Your task to perform on an android device: Open Google Chrome and open the bookmarks view Image 0: 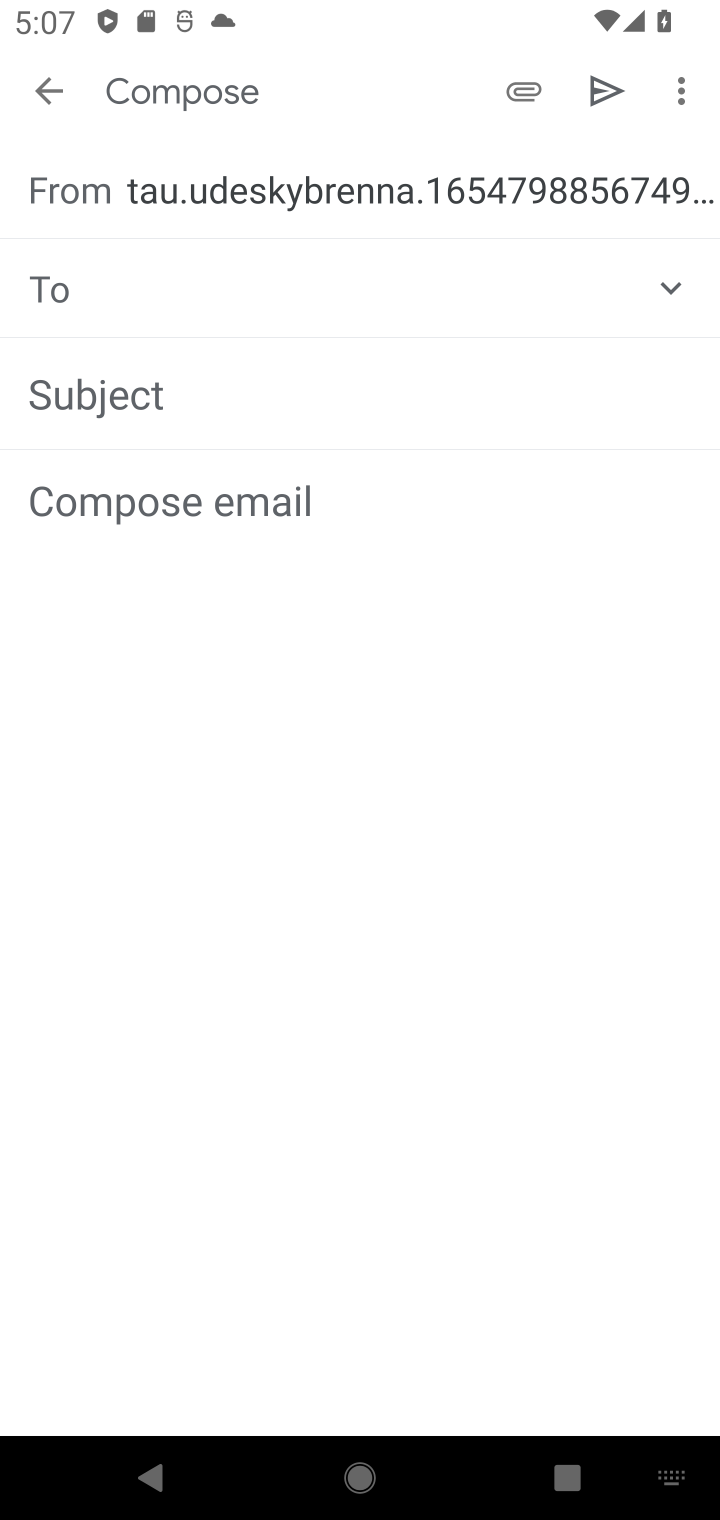
Step 0: press home button
Your task to perform on an android device: Open Google Chrome and open the bookmarks view Image 1: 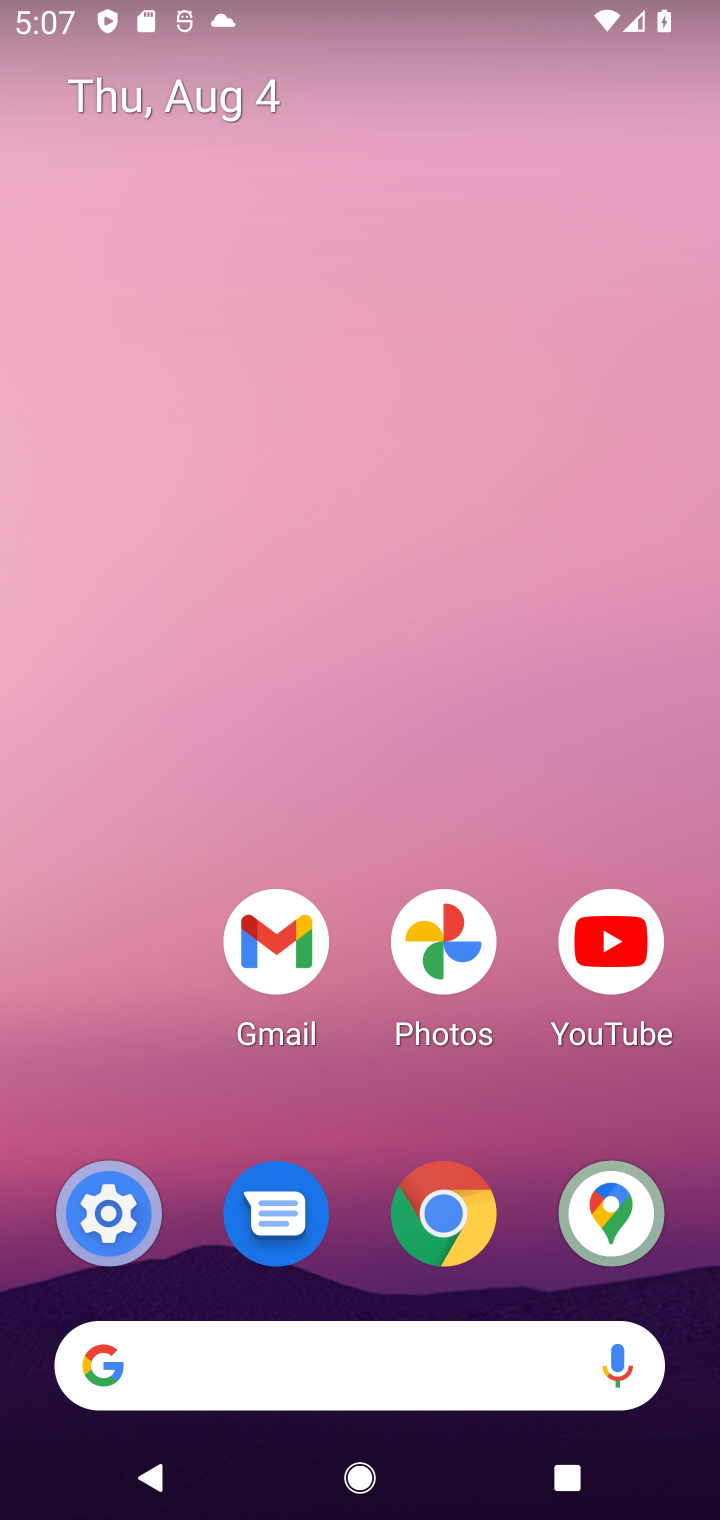
Step 1: drag from (149, 962) to (189, 278)
Your task to perform on an android device: Open Google Chrome and open the bookmarks view Image 2: 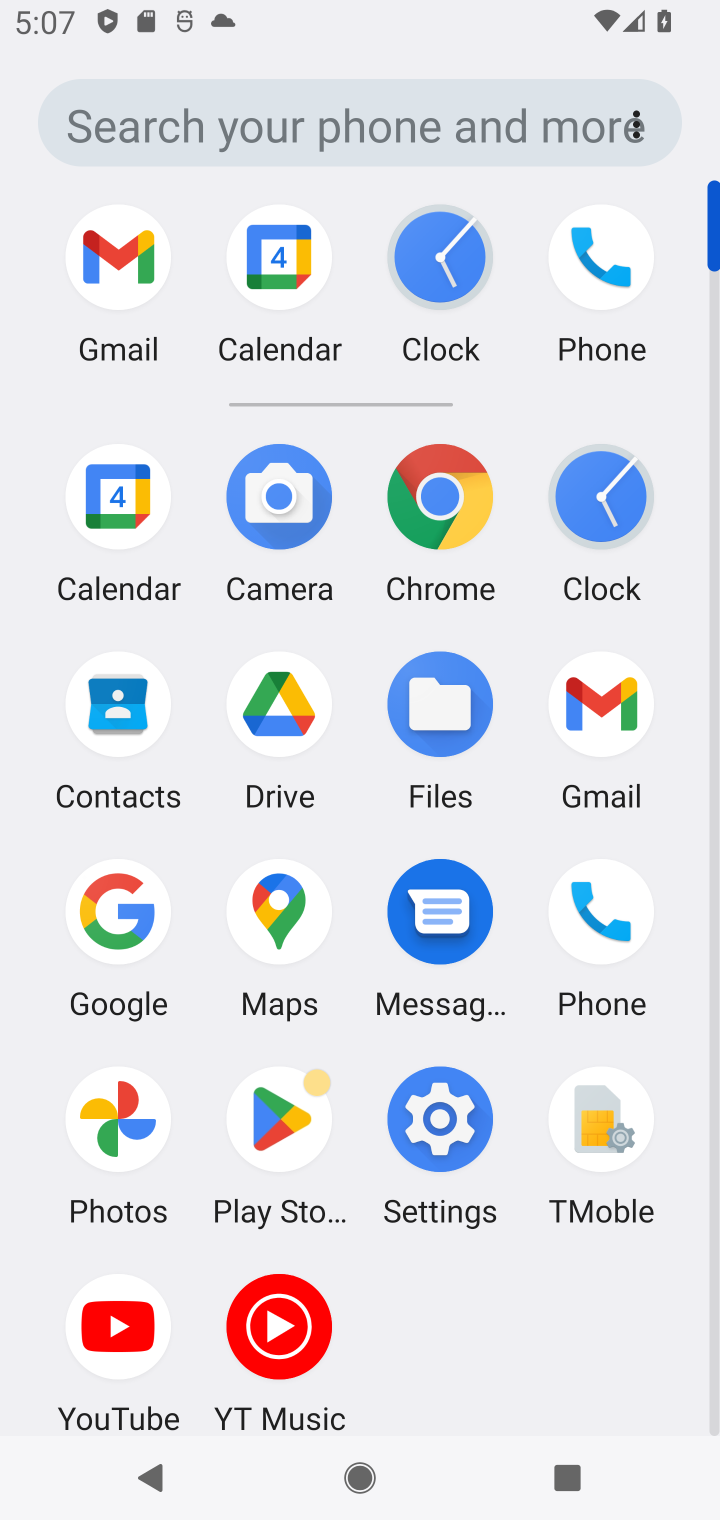
Step 2: click (434, 475)
Your task to perform on an android device: Open Google Chrome and open the bookmarks view Image 3: 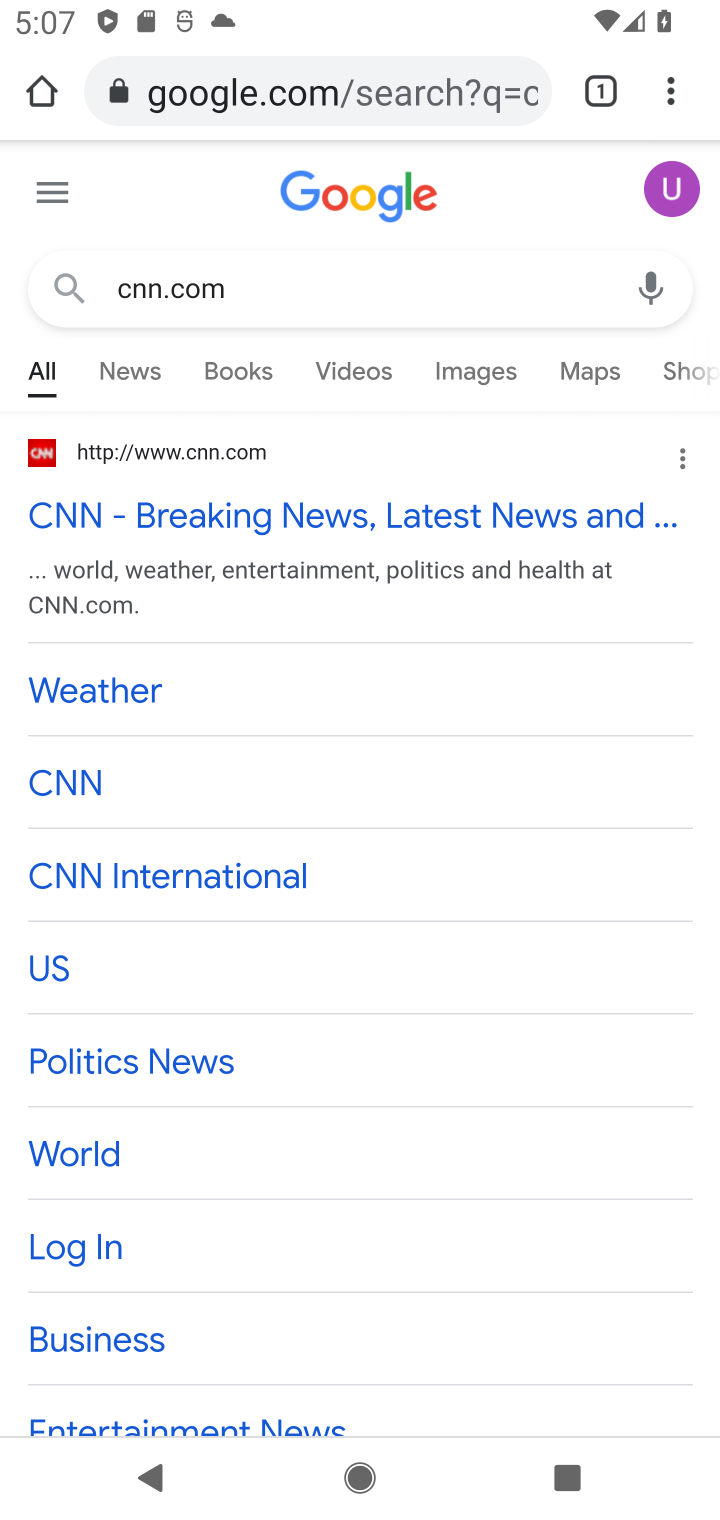
Step 3: click (667, 96)
Your task to perform on an android device: Open Google Chrome and open the bookmarks view Image 4: 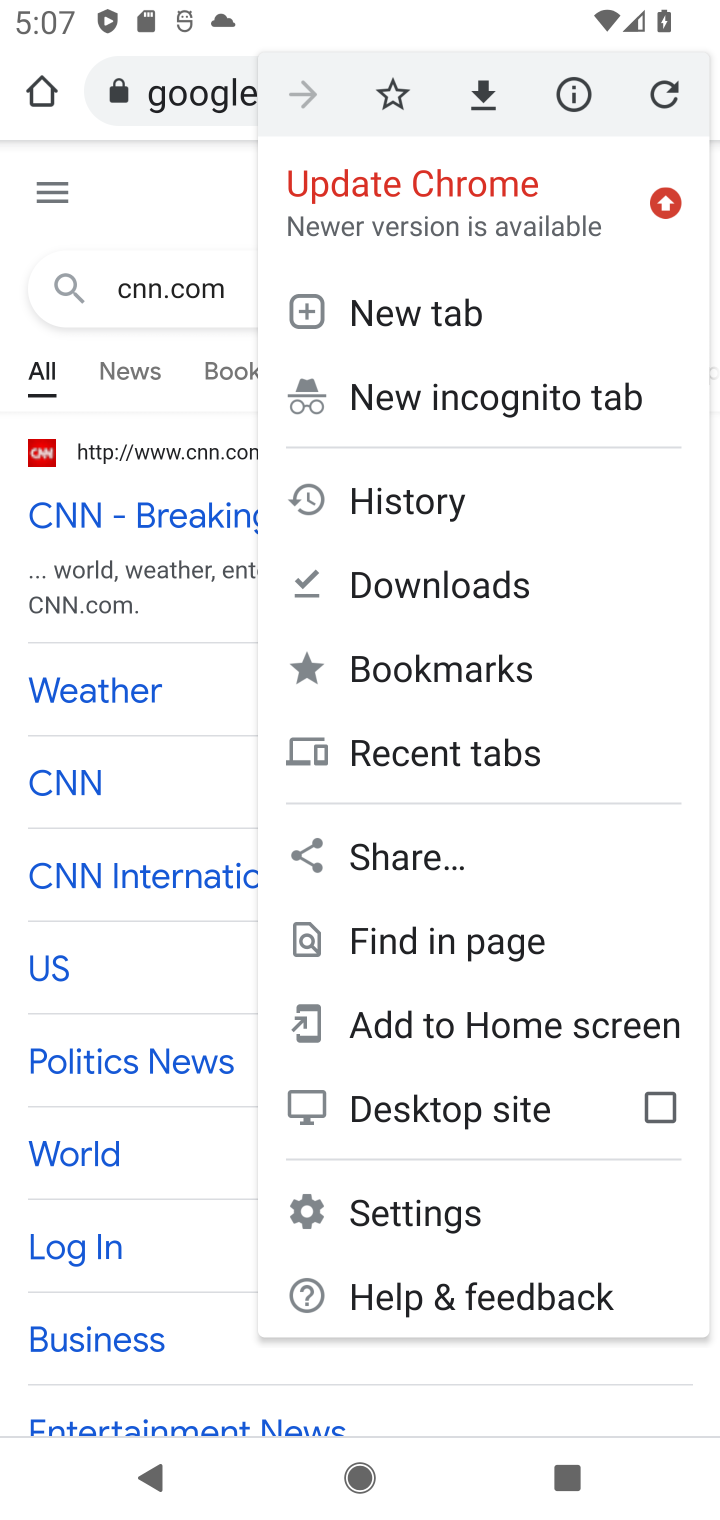
Step 4: click (516, 650)
Your task to perform on an android device: Open Google Chrome and open the bookmarks view Image 5: 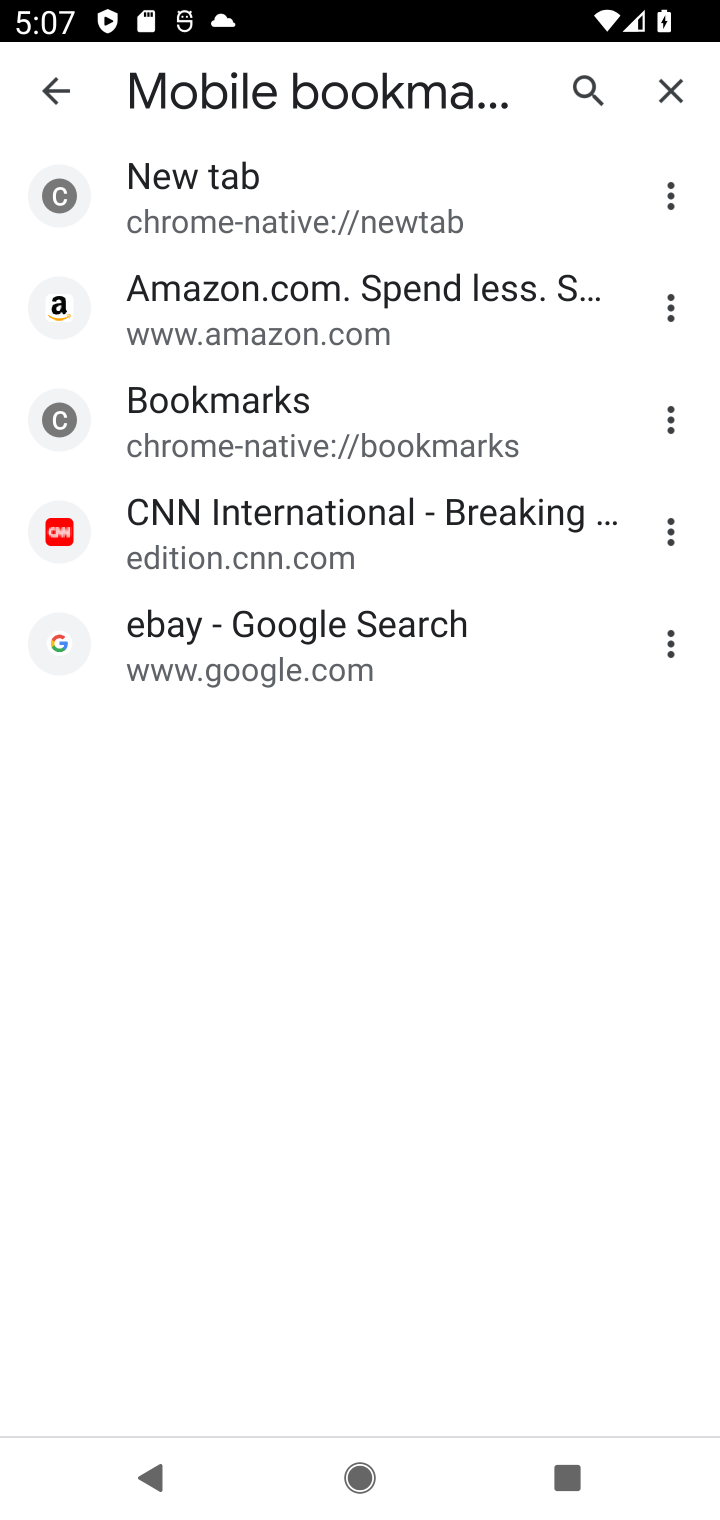
Step 5: task complete